Your task to perform on an android device: Toggle the flashlight Image 0: 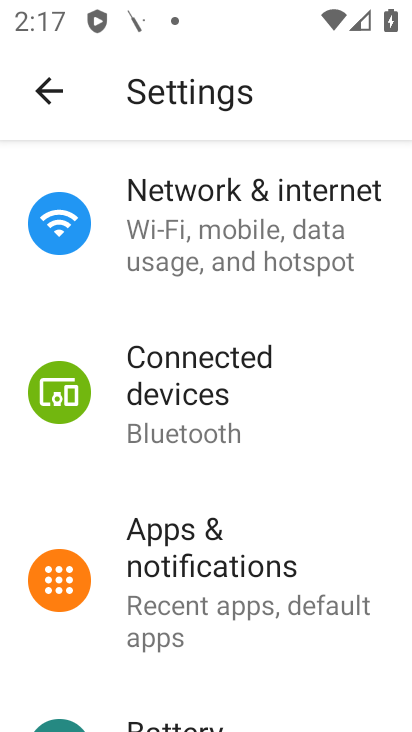
Step 0: drag from (219, 590) to (223, 233)
Your task to perform on an android device: Toggle the flashlight Image 1: 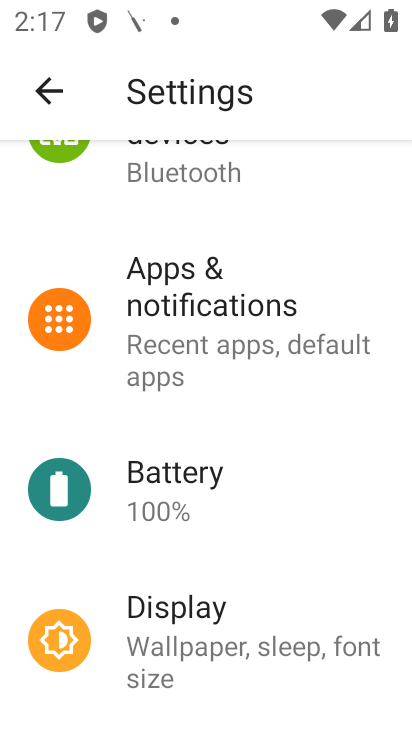
Step 1: task complete